Your task to perform on an android device: turn off location Image 0: 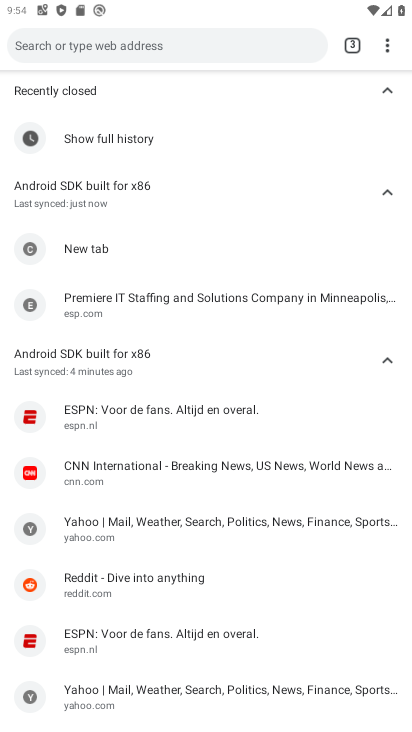
Step 0: press home button
Your task to perform on an android device: turn off location Image 1: 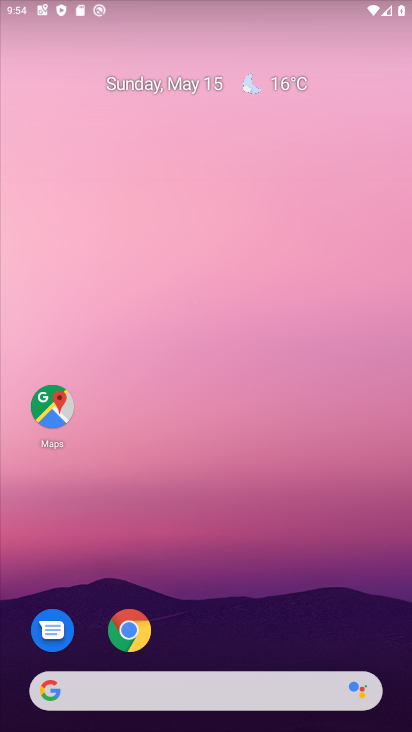
Step 1: drag from (201, 608) to (208, 182)
Your task to perform on an android device: turn off location Image 2: 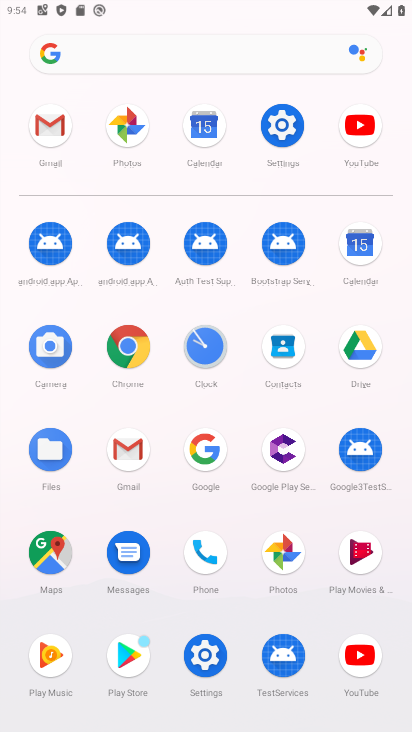
Step 2: click (268, 145)
Your task to perform on an android device: turn off location Image 3: 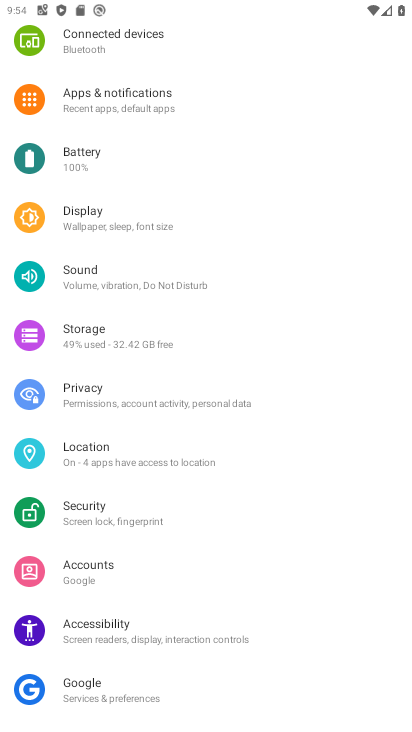
Step 3: drag from (122, 635) to (175, 403)
Your task to perform on an android device: turn off location Image 4: 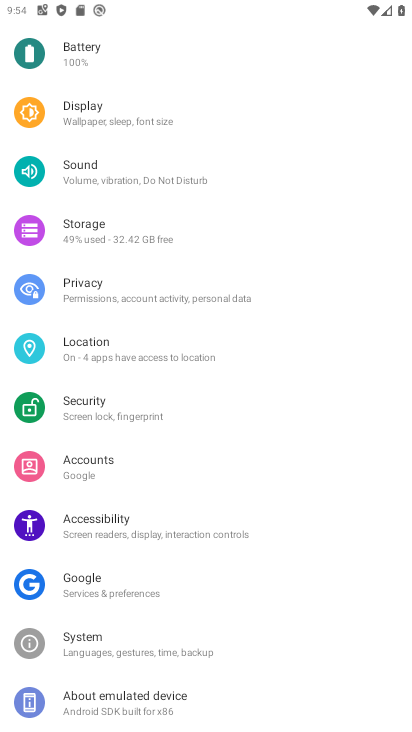
Step 4: click (116, 342)
Your task to perform on an android device: turn off location Image 5: 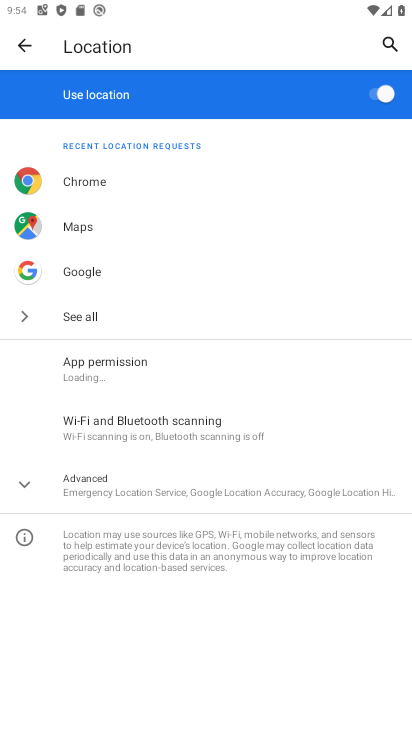
Step 5: click (374, 97)
Your task to perform on an android device: turn off location Image 6: 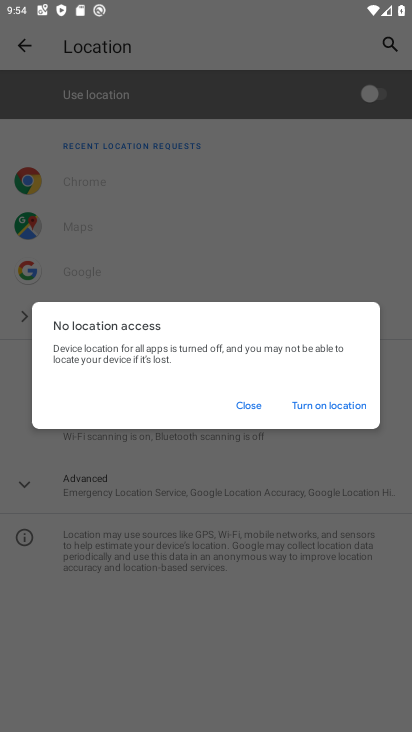
Step 6: task complete